Your task to perform on an android device: empty trash in the gmail app Image 0: 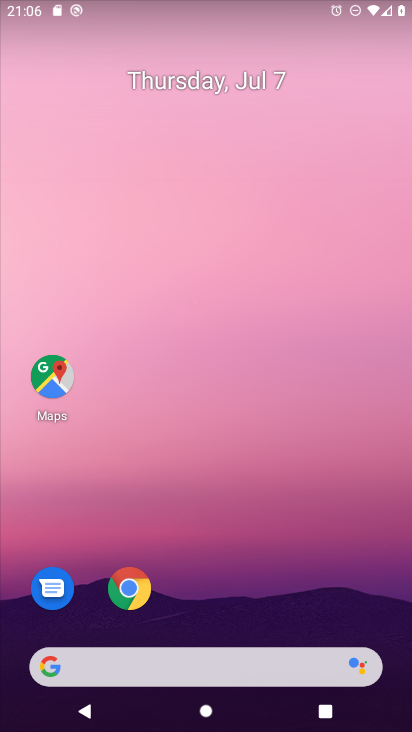
Step 0: drag from (274, 625) to (270, 283)
Your task to perform on an android device: empty trash in the gmail app Image 1: 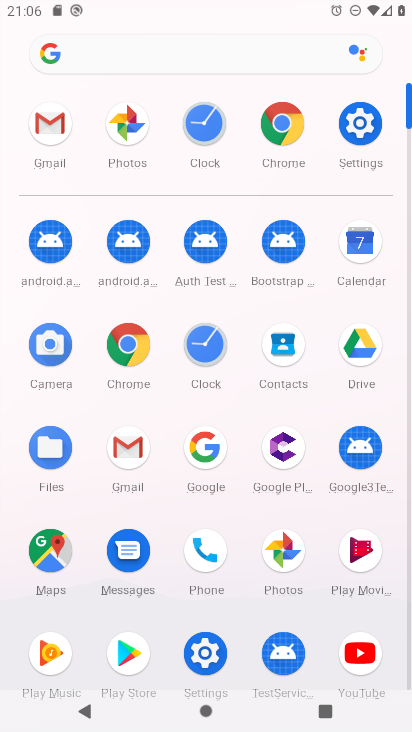
Step 1: click (131, 431)
Your task to perform on an android device: empty trash in the gmail app Image 2: 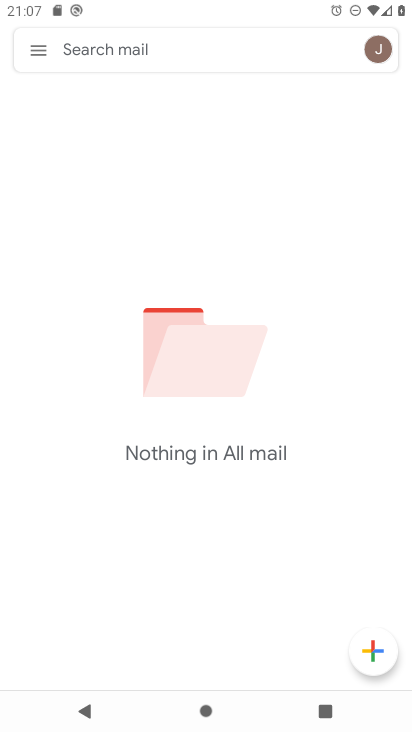
Step 2: click (30, 42)
Your task to perform on an android device: empty trash in the gmail app Image 3: 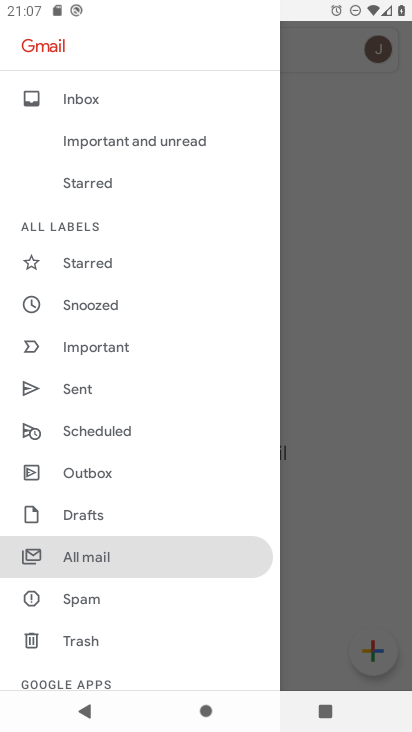
Step 3: drag from (123, 528) to (125, 380)
Your task to perform on an android device: empty trash in the gmail app Image 4: 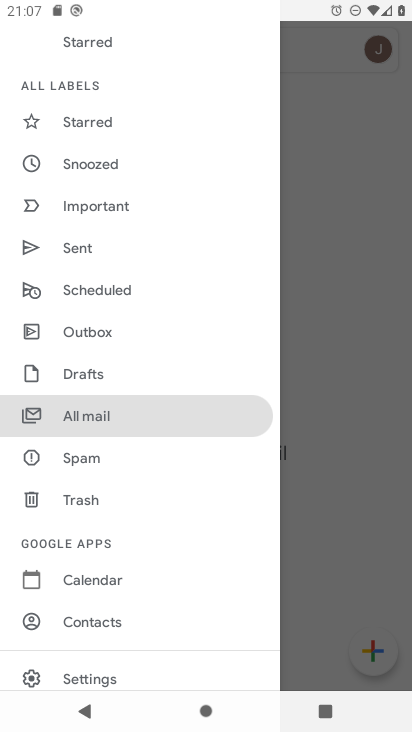
Step 4: click (106, 491)
Your task to perform on an android device: empty trash in the gmail app Image 5: 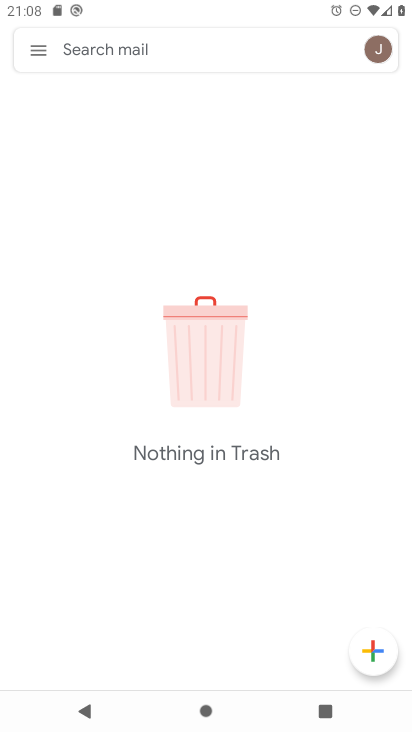
Step 5: task complete